Your task to perform on an android device: Show me the alarms in the clock app Image 0: 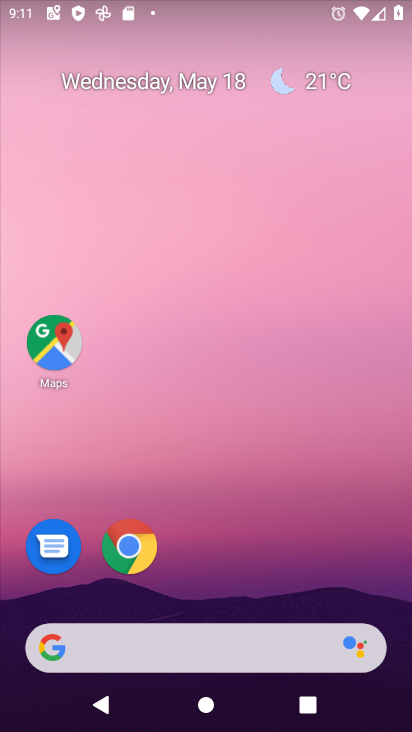
Step 0: drag from (389, 632) to (301, 87)
Your task to perform on an android device: Show me the alarms in the clock app Image 1: 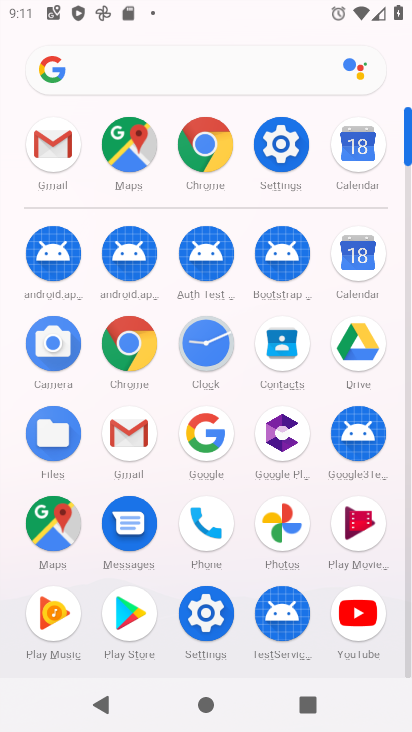
Step 1: click (192, 343)
Your task to perform on an android device: Show me the alarms in the clock app Image 2: 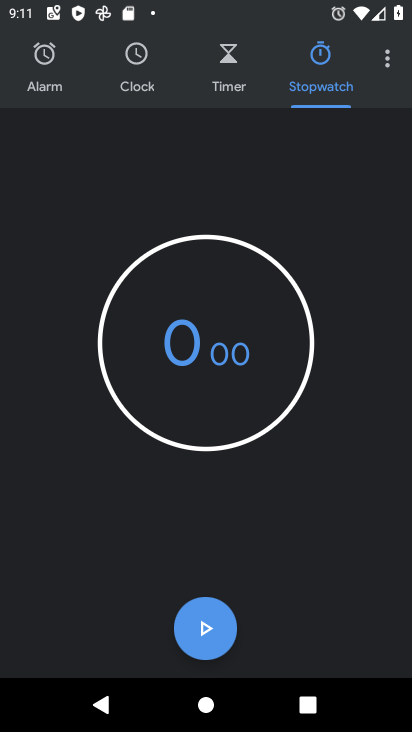
Step 2: click (37, 71)
Your task to perform on an android device: Show me the alarms in the clock app Image 3: 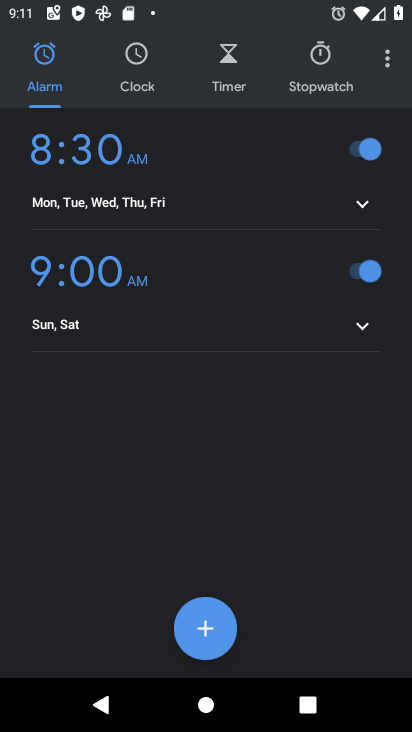
Step 3: task complete